Your task to perform on an android device: See recent photos Image 0: 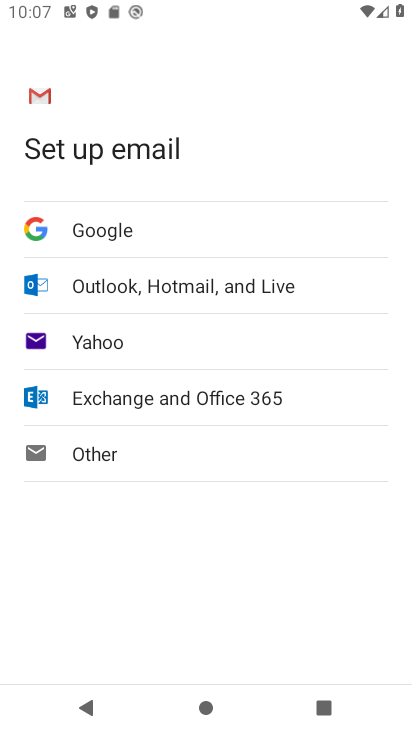
Step 0: press home button
Your task to perform on an android device: See recent photos Image 1: 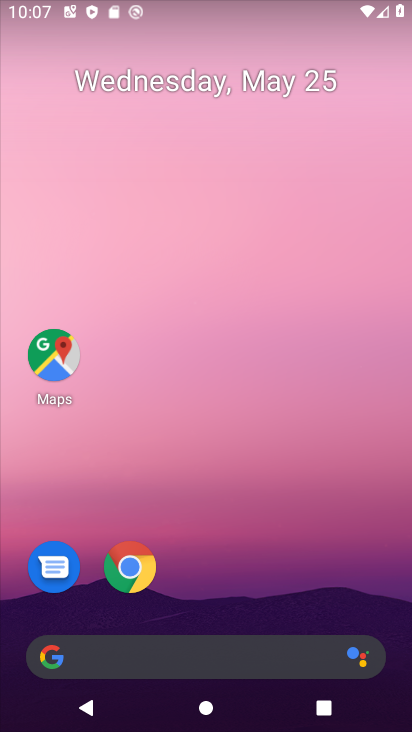
Step 1: drag from (280, 614) to (323, 8)
Your task to perform on an android device: See recent photos Image 2: 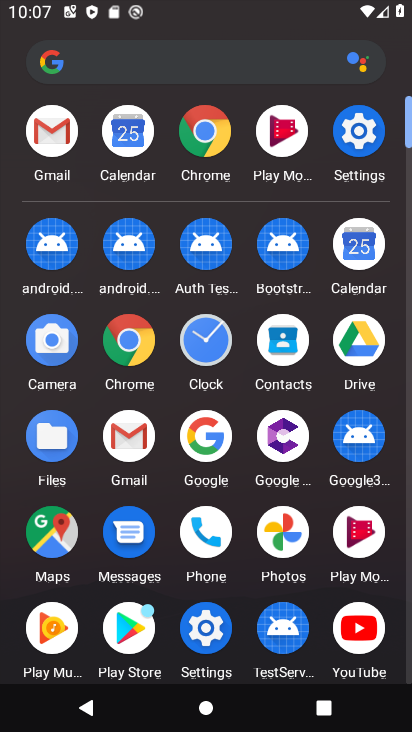
Step 2: click (278, 530)
Your task to perform on an android device: See recent photos Image 3: 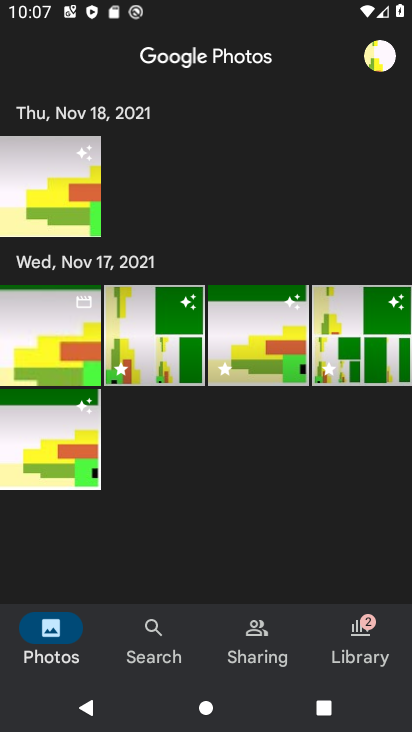
Step 3: task complete